Your task to perform on an android device: remove spam from my inbox in the gmail app Image 0: 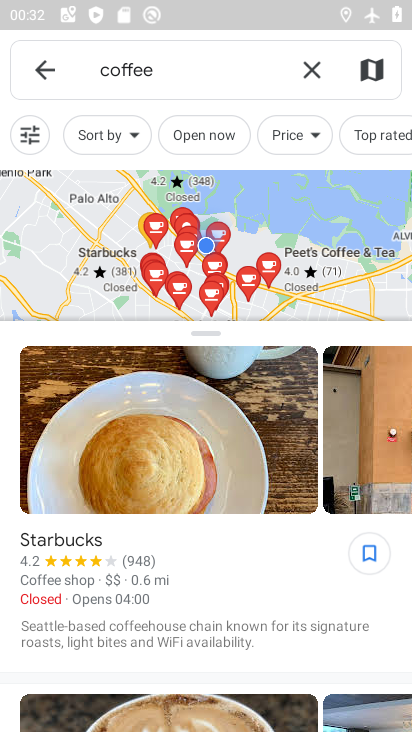
Step 0: press home button
Your task to perform on an android device: remove spam from my inbox in the gmail app Image 1: 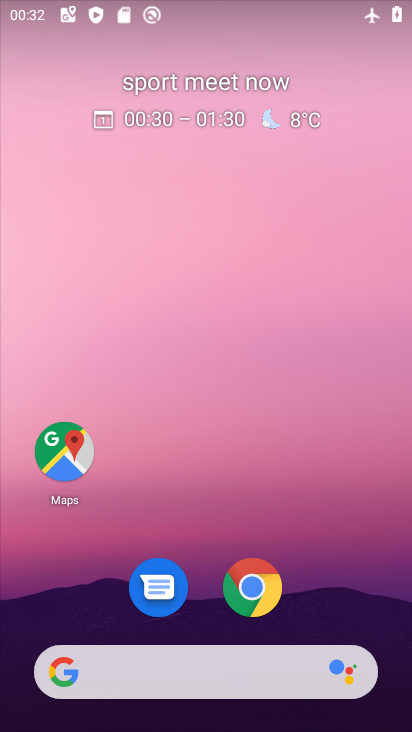
Step 1: drag from (399, 671) to (387, 278)
Your task to perform on an android device: remove spam from my inbox in the gmail app Image 2: 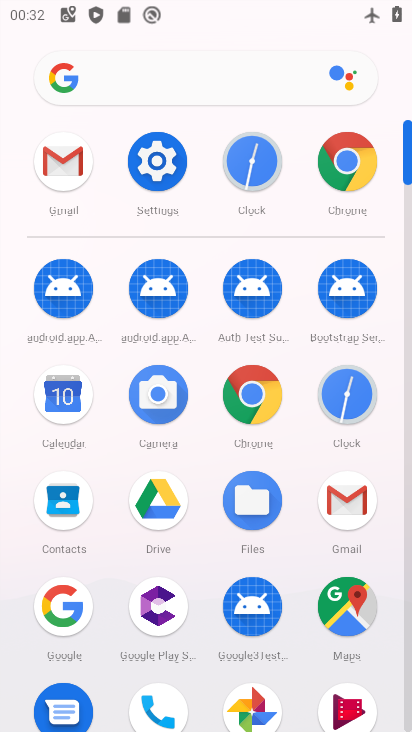
Step 2: click (358, 489)
Your task to perform on an android device: remove spam from my inbox in the gmail app Image 3: 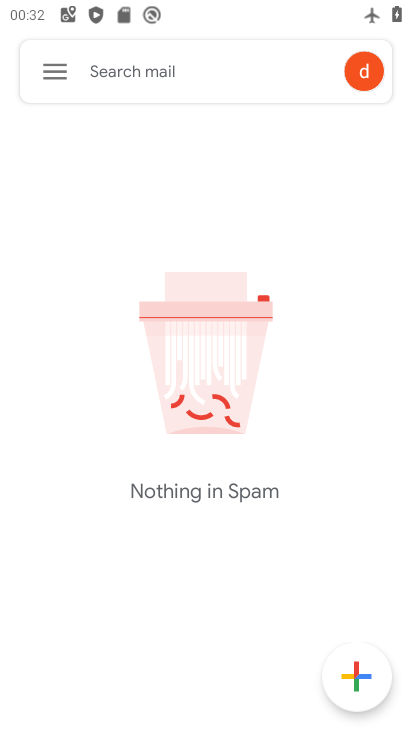
Step 3: click (56, 69)
Your task to perform on an android device: remove spam from my inbox in the gmail app Image 4: 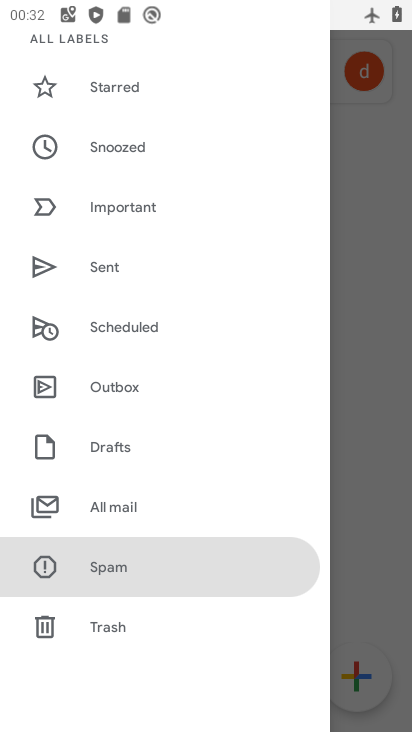
Step 4: click (111, 567)
Your task to perform on an android device: remove spam from my inbox in the gmail app Image 5: 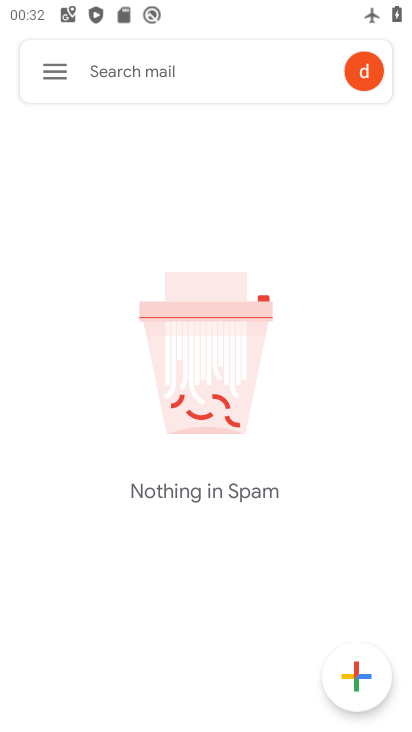
Step 5: task complete